Your task to perform on an android device: Check the news Image 0: 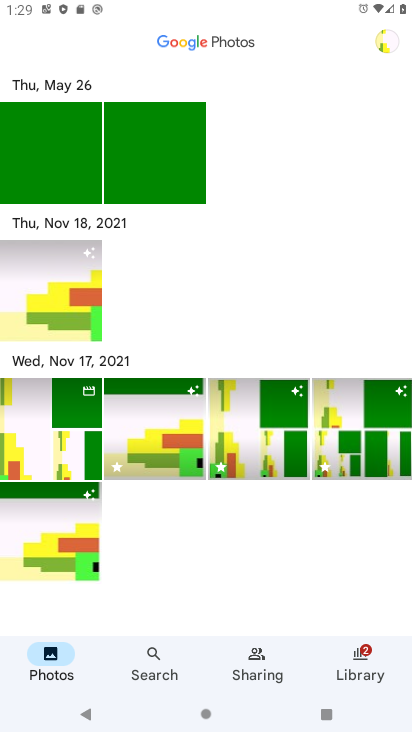
Step 0: press home button
Your task to perform on an android device: Check the news Image 1: 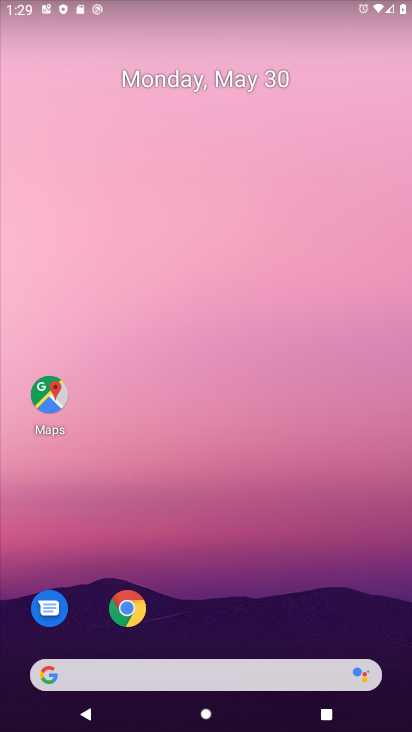
Step 1: click (153, 676)
Your task to perform on an android device: Check the news Image 2: 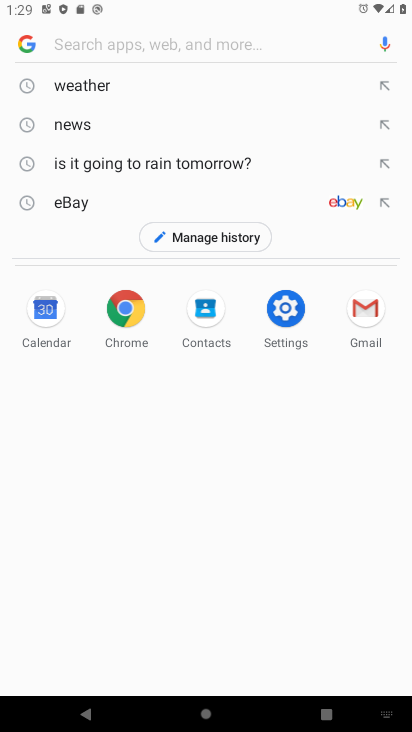
Step 2: click (70, 119)
Your task to perform on an android device: Check the news Image 3: 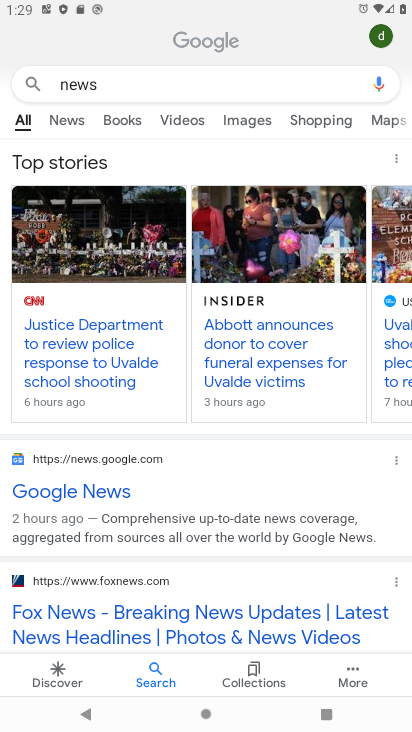
Step 3: task complete